Your task to perform on an android device: Go to Google maps Image 0: 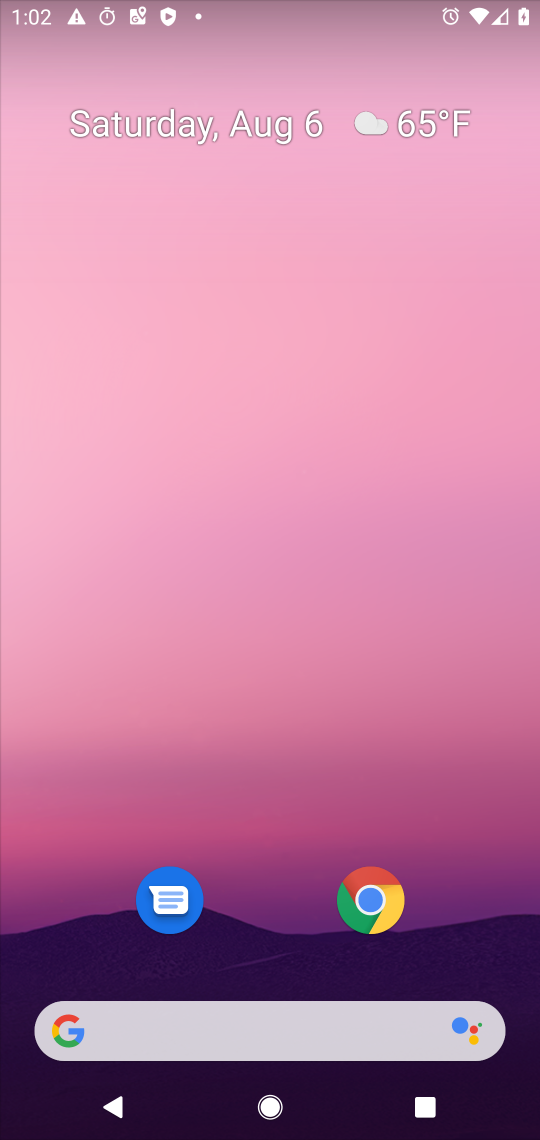
Step 0: drag from (253, 968) to (213, 150)
Your task to perform on an android device: Go to Google maps Image 1: 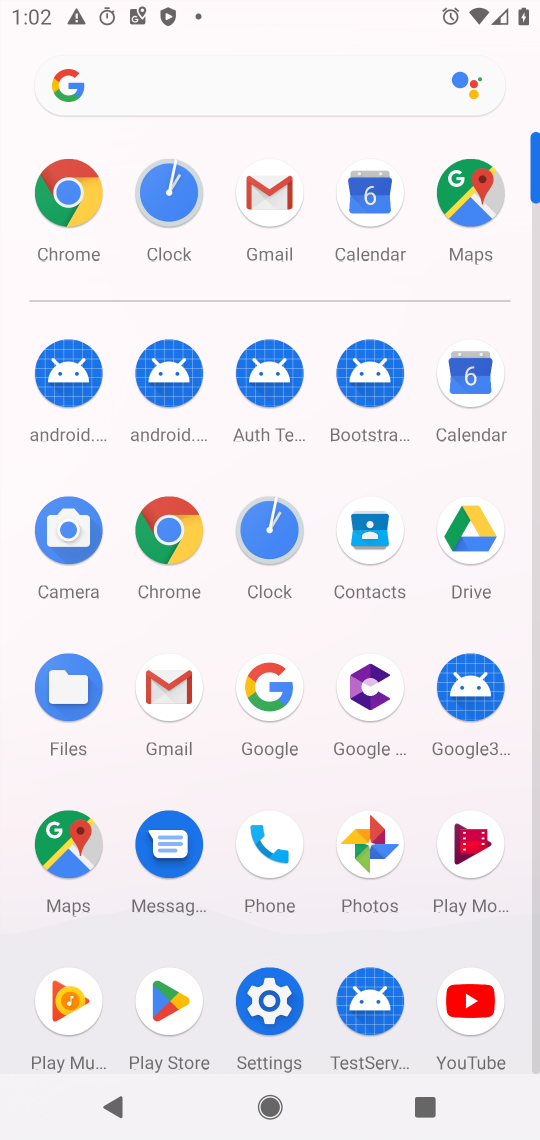
Step 1: click (82, 844)
Your task to perform on an android device: Go to Google maps Image 2: 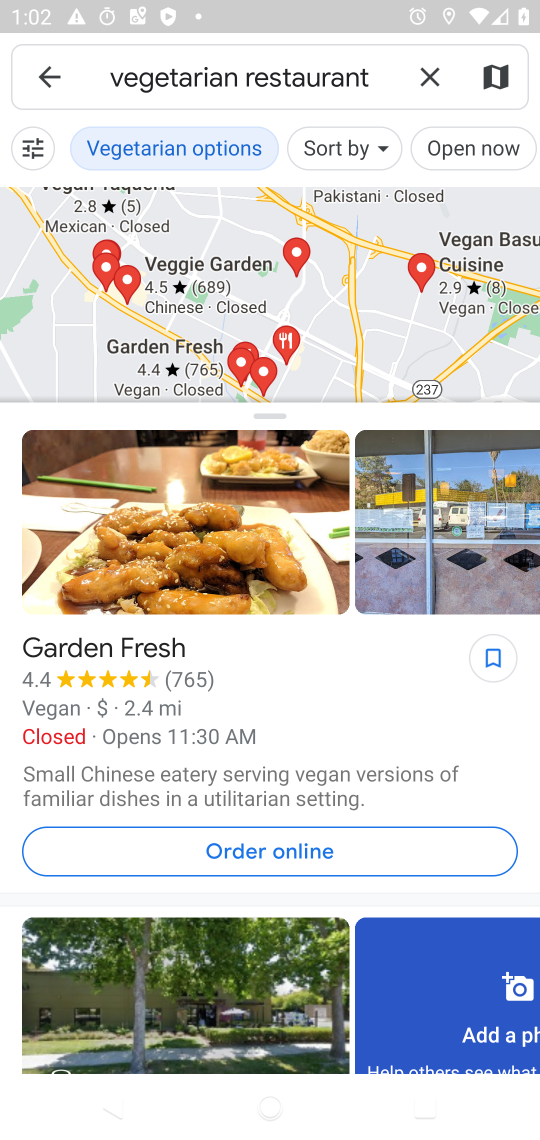
Step 2: task complete